Your task to perform on an android device: find snoozed emails in the gmail app Image 0: 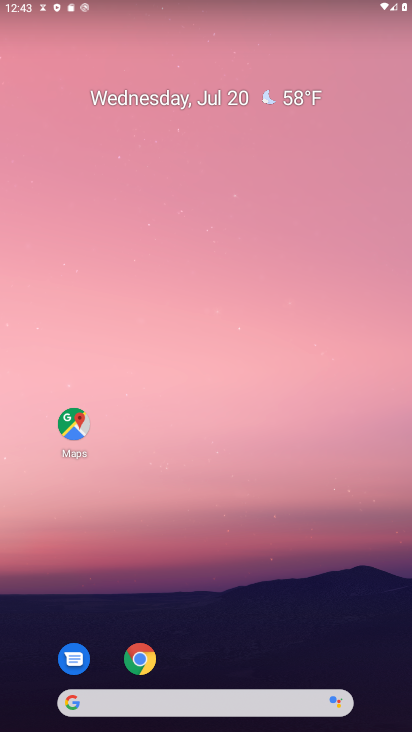
Step 0: press home button
Your task to perform on an android device: find snoozed emails in the gmail app Image 1: 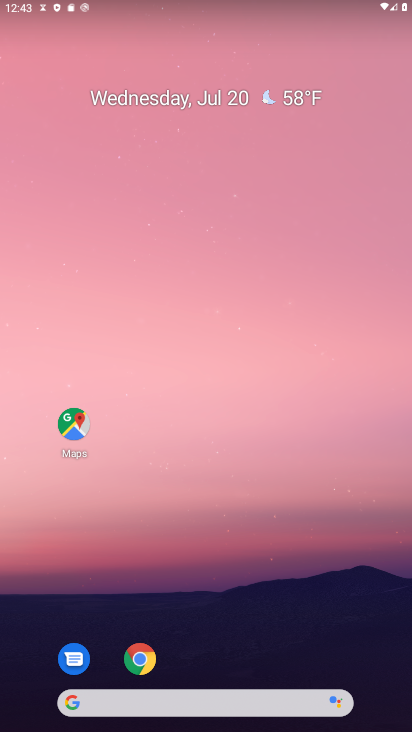
Step 1: drag from (210, 675) to (247, 36)
Your task to perform on an android device: find snoozed emails in the gmail app Image 2: 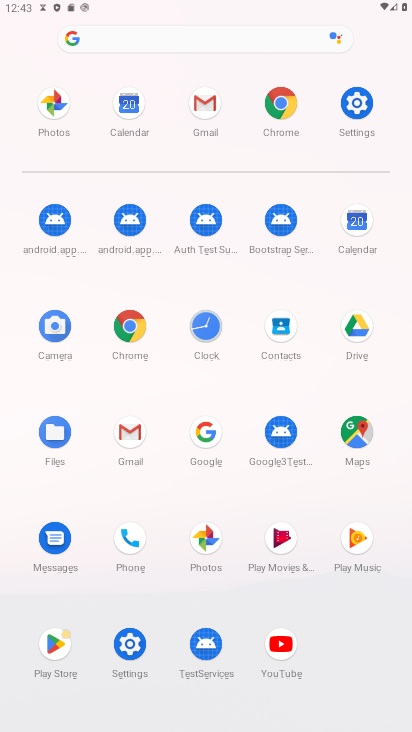
Step 2: click (205, 95)
Your task to perform on an android device: find snoozed emails in the gmail app Image 3: 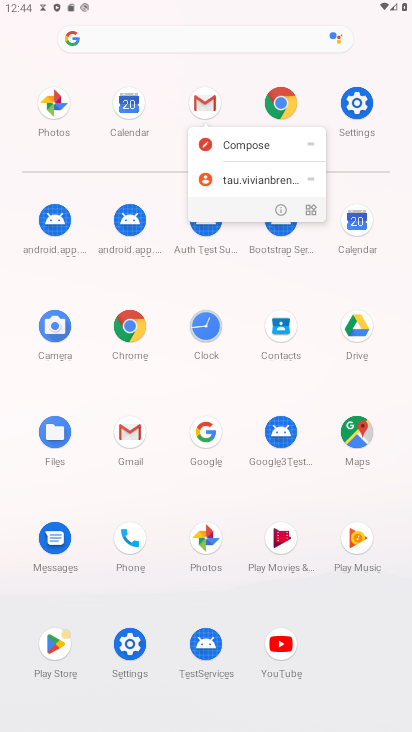
Step 3: click (204, 92)
Your task to perform on an android device: find snoozed emails in the gmail app Image 4: 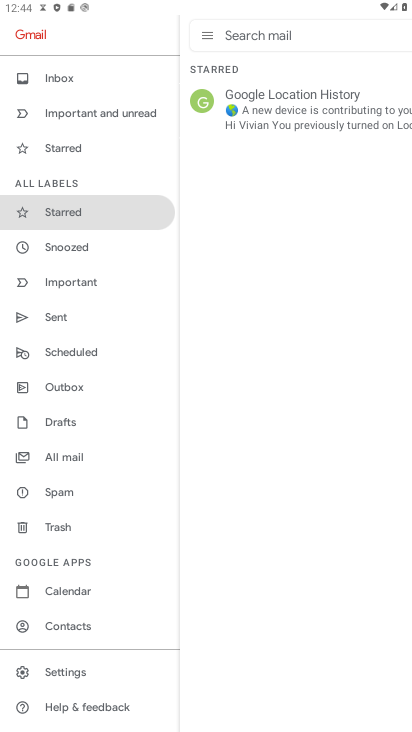
Step 4: click (94, 247)
Your task to perform on an android device: find snoozed emails in the gmail app Image 5: 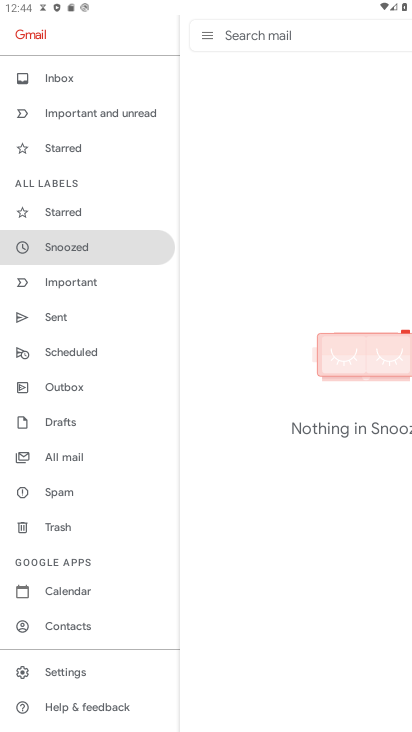
Step 5: task complete